Your task to perform on an android device: Search for sushi restaurants on Maps Image 0: 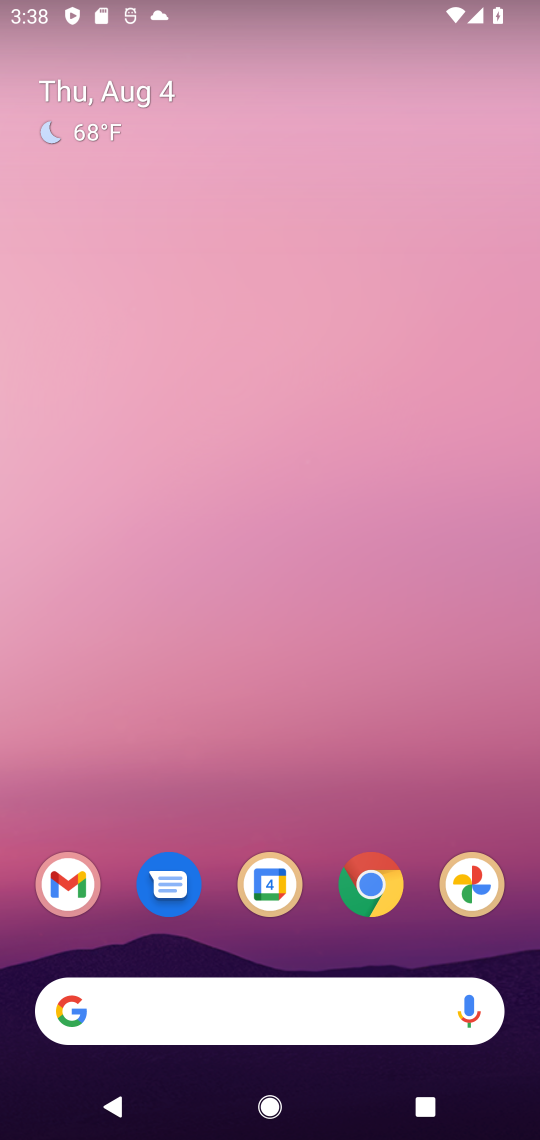
Step 0: drag from (239, 962) to (337, 391)
Your task to perform on an android device: Search for sushi restaurants on Maps Image 1: 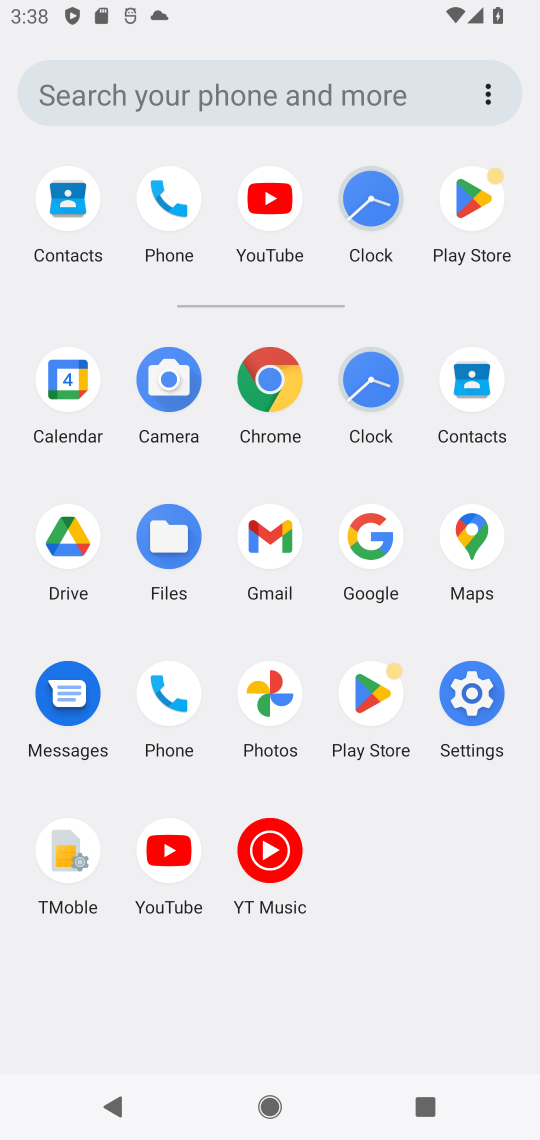
Step 1: click (479, 518)
Your task to perform on an android device: Search for sushi restaurants on Maps Image 2: 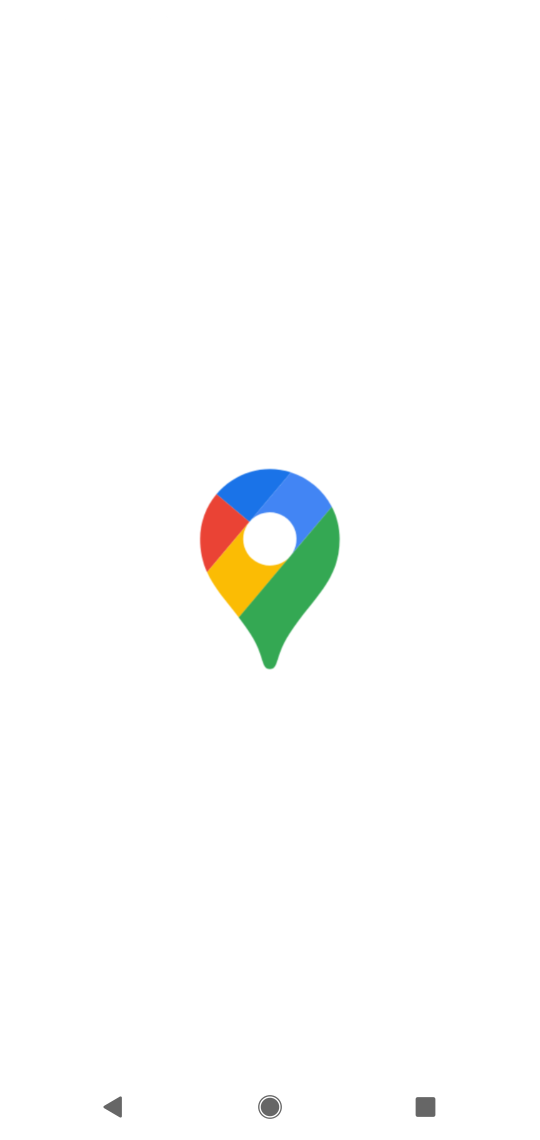
Step 2: task complete